Your task to perform on an android device: Open calendar and show me the fourth week of next month Image 0: 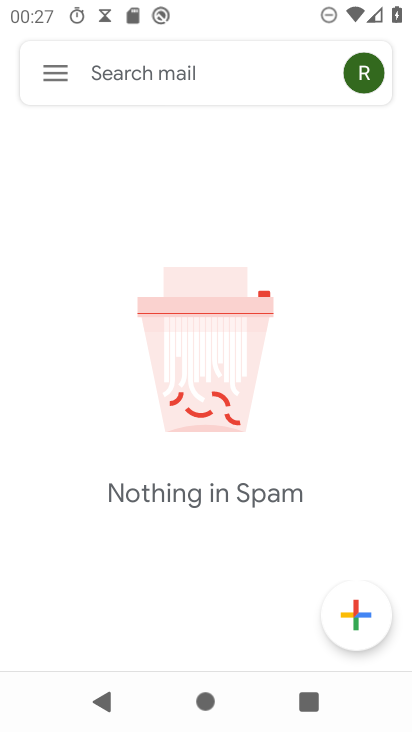
Step 0: press home button
Your task to perform on an android device: Open calendar and show me the fourth week of next month Image 1: 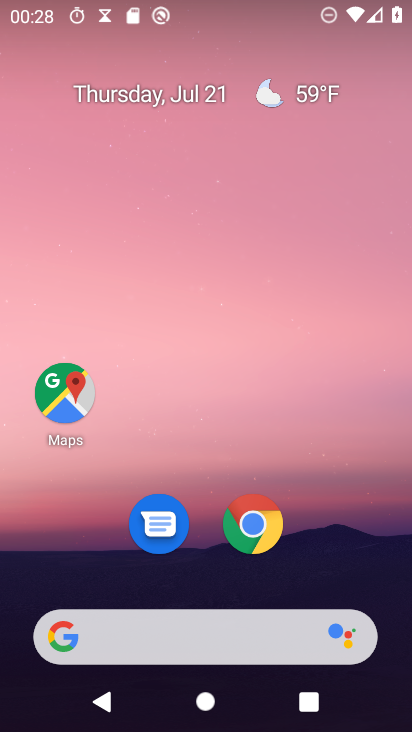
Step 1: drag from (199, 623) to (315, 162)
Your task to perform on an android device: Open calendar and show me the fourth week of next month Image 2: 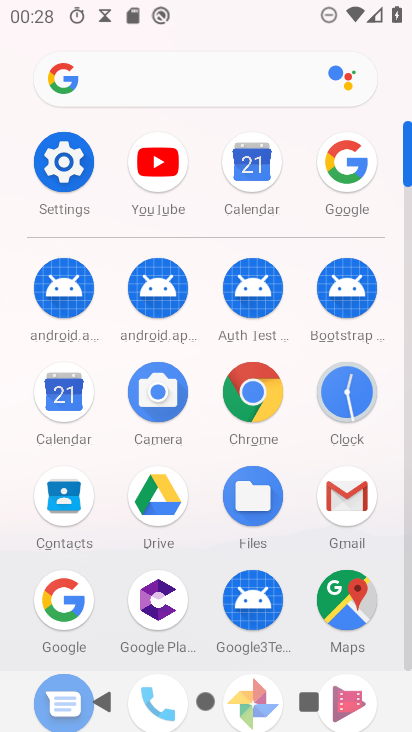
Step 2: click (60, 394)
Your task to perform on an android device: Open calendar and show me the fourth week of next month Image 3: 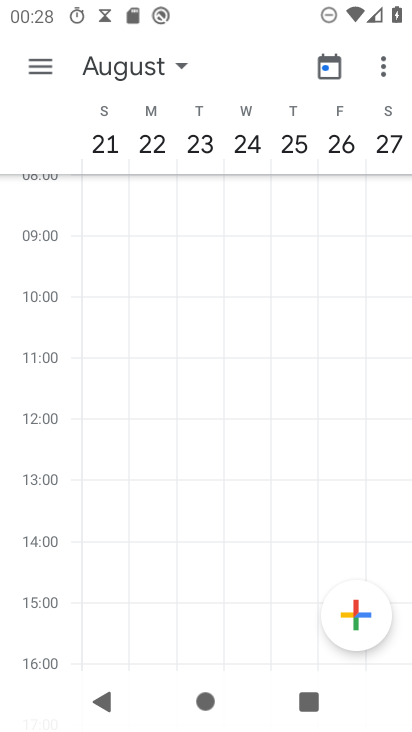
Step 3: task complete